Your task to perform on an android device: star an email in the gmail app Image 0: 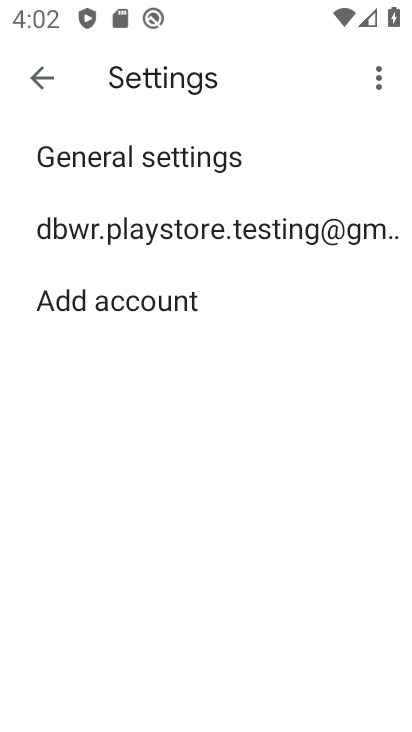
Step 0: press home button
Your task to perform on an android device: star an email in the gmail app Image 1: 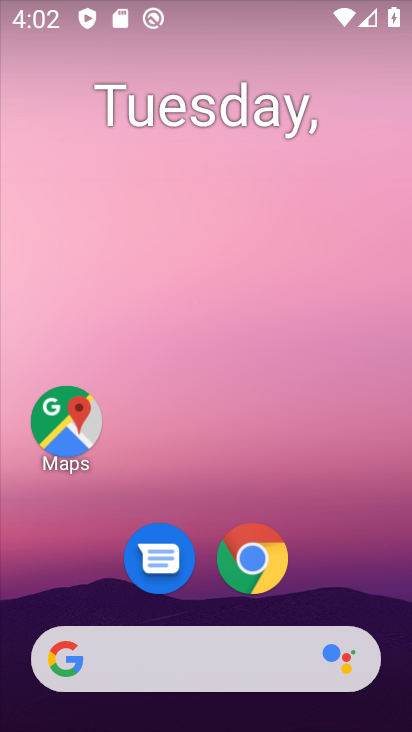
Step 1: drag from (348, 594) to (266, 297)
Your task to perform on an android device: star an email in the gmail app Image 2: 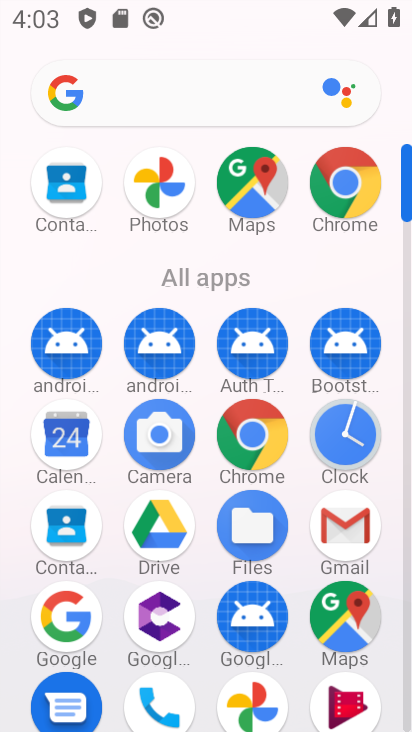
Step 2: click (332, 540)
Your task to perform on an android device: star an email in the gmail app Image 3: 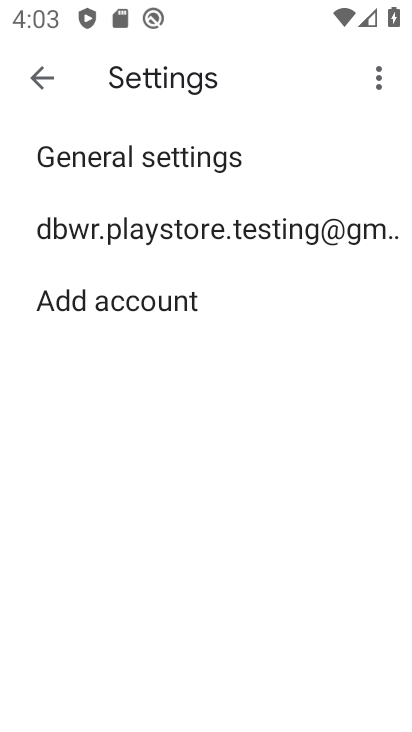
Step 3: click (52, 83)
Your task to perform on an android device: star an email in the gmail app Image 4: 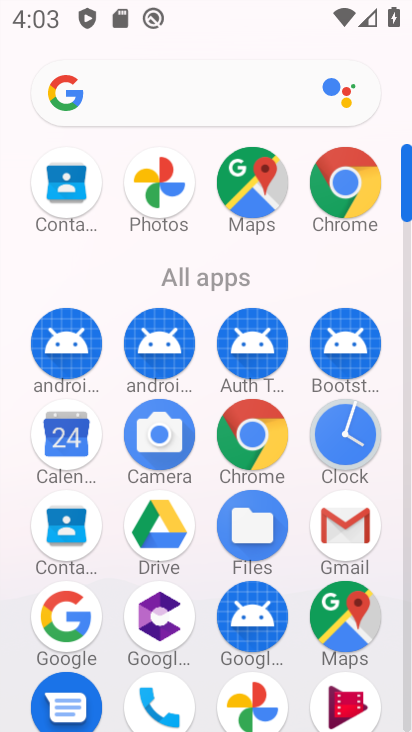
Step 4: click (334, 547)
Your task to perform on an android device: star an email in the gmail app Image 5: 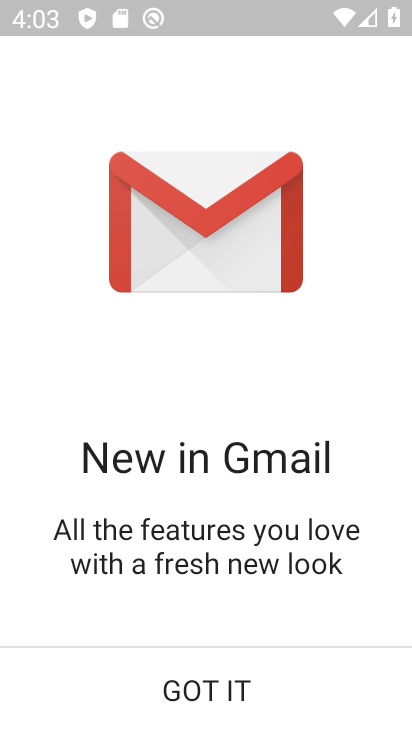
Step 5: click (223, 699)
Your task to perform on an android device: star an email in the gmail app Image 6: 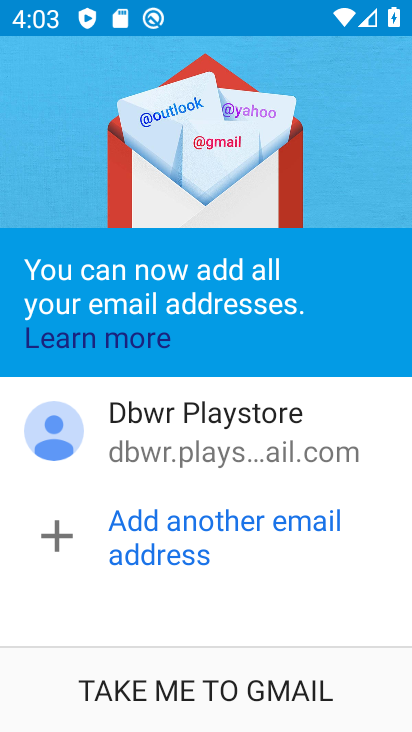
Step 6: click (223, 699)
Your task to perform on an android device: star an email in the gmail app Image 7: 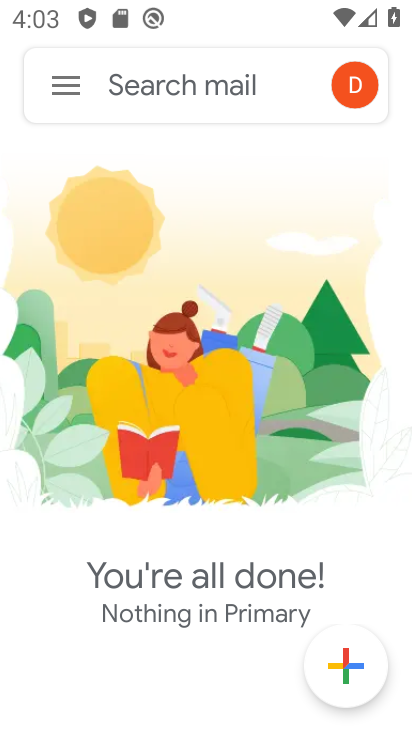
Step 7: task complete